Your task to perform on an android device: stop showing notifications on the lock screen Image 0: 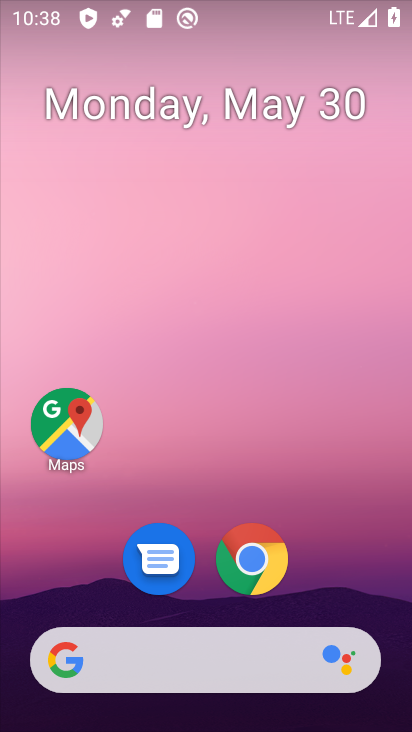
Step 0: drag from (331, 559) to (232, 289)
Your task to perform on an android device: stop showing notifications on the lock screen Image 1: 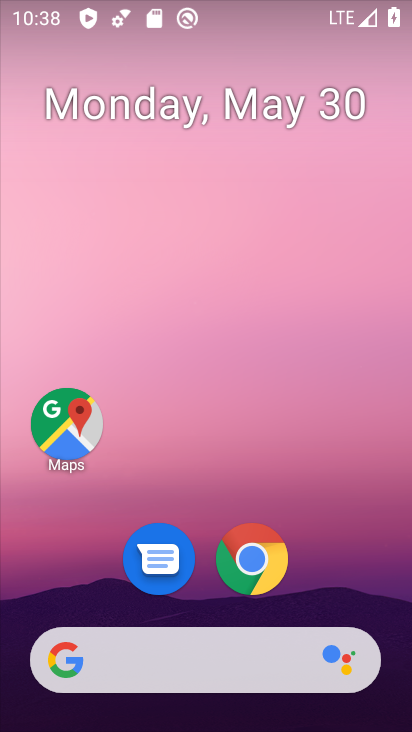
Step 1: drag from (360, 595) to (252, 171)
Your task to perform on an android device: stop showing notifications on the lock screen Image 2: 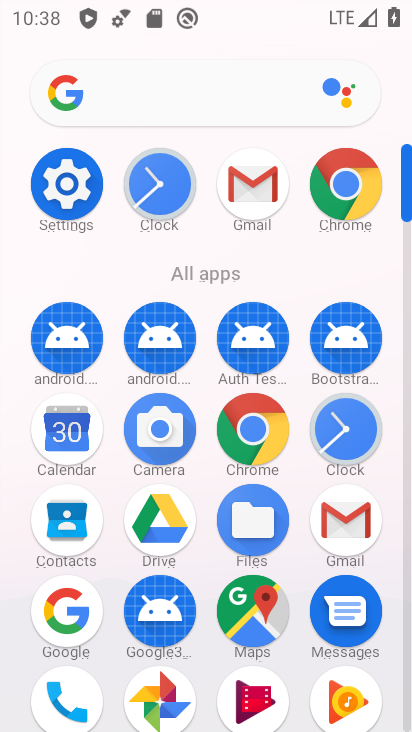
Step 2: click (79, 178)
Your task to perform on an android device: stop showing notifications on the lock screen Image 3: 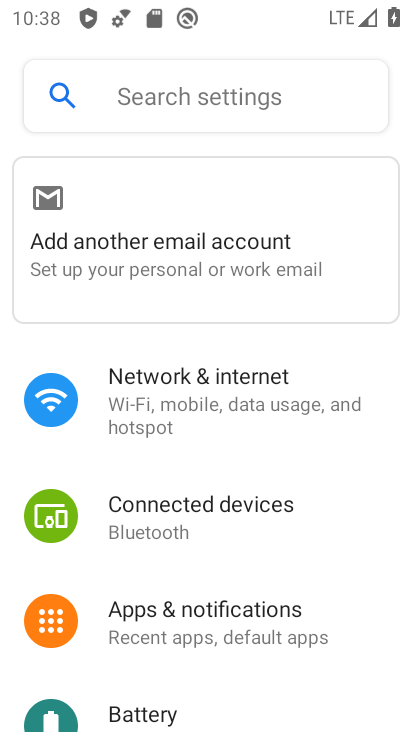
Step 3: click (227, 633)
Your task to perform on an android device: stop showing notifications on the lock screen Image 4: 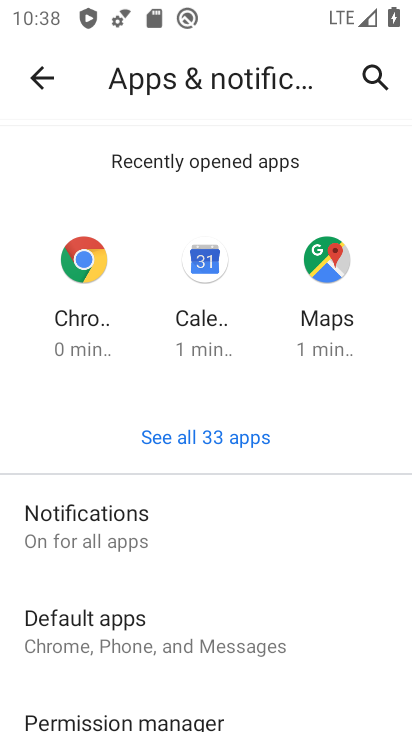
Step 4: click (267, 519)
Your task to perform on an android device: stop showing notifications on the lock screen Image 5: 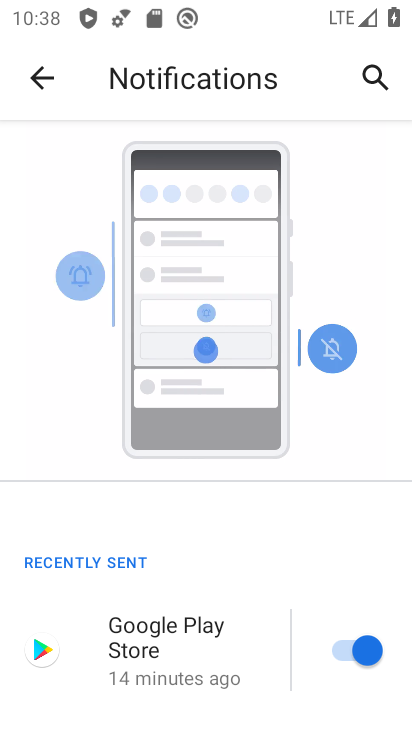
Step 5: drag from (259, 588) to (201, 265)
Your task to perform on an android device: stop showing notifications on the lock screen Image 6: 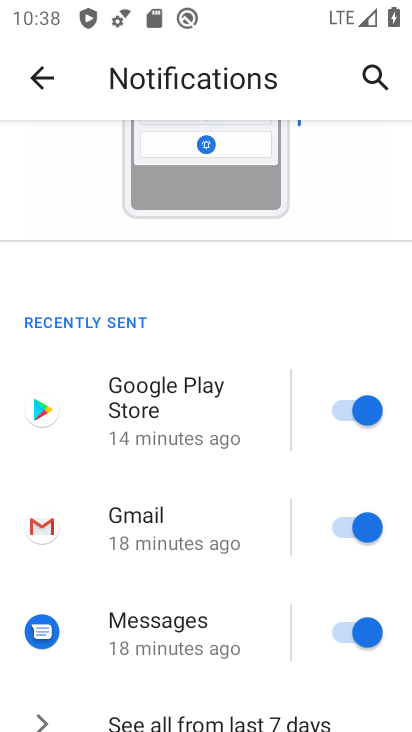
Step 6: drag from (216, 520) to (205, 231)
Your task to perform on an android device: stop showing notifications on the lock screen Image 7: 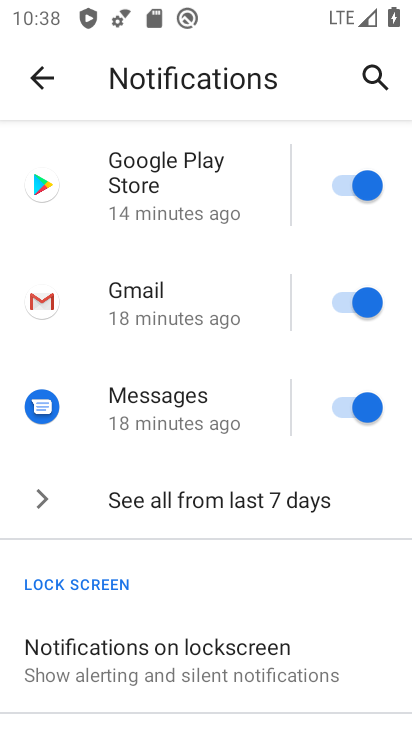
Step 7: drag from (211, 616) to (188, 360)
Your task to perform on an android device: stop showing notifications on the lock screen Image 8: 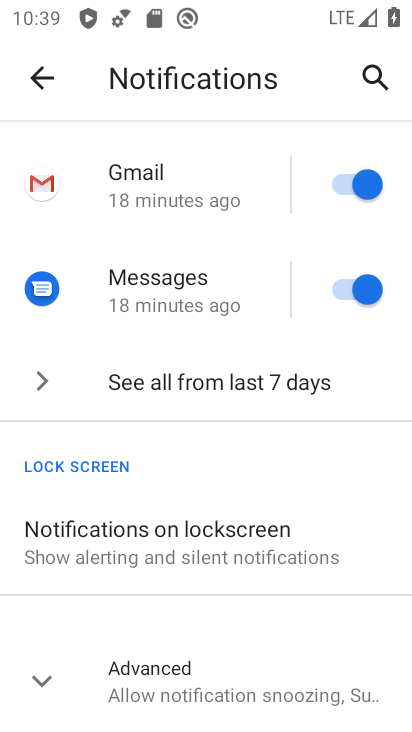
Step 8: click (208, 541)
Your task to perform on an android device: stop showing notifications on the lock screen Image 9: 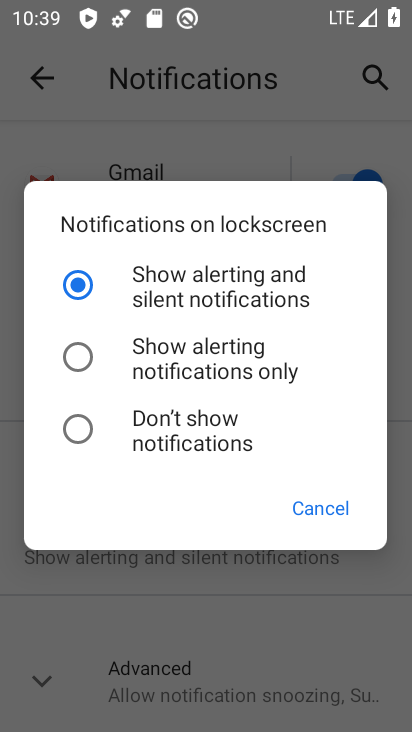
Step 9: click (203, 453)
Your task to perform on an android device: stop showing notifications on the lock screen Image 10: 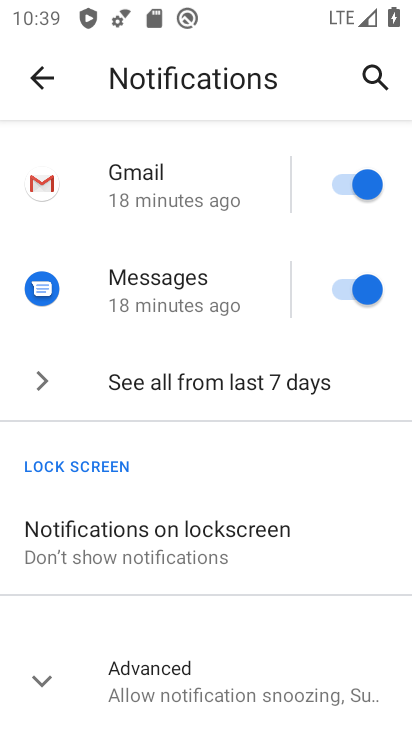
Step 10: task complete